Your task to perform on an android device: toggle data saver in the chrome app Image 0: 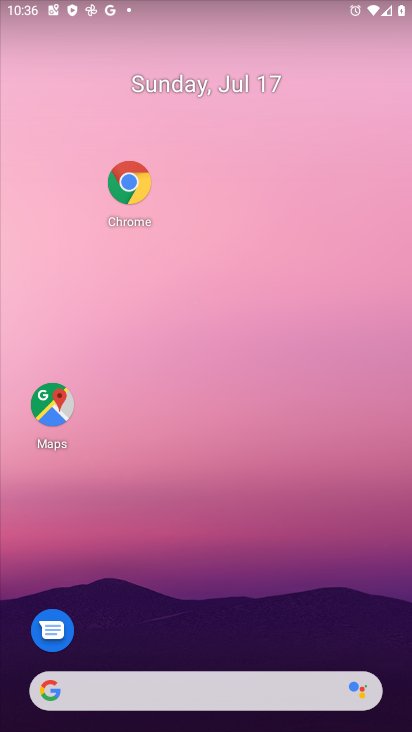
Step 0: click (128, 194)
Your task to perform on an android device: toggle data saver in the chrome app Image 1: 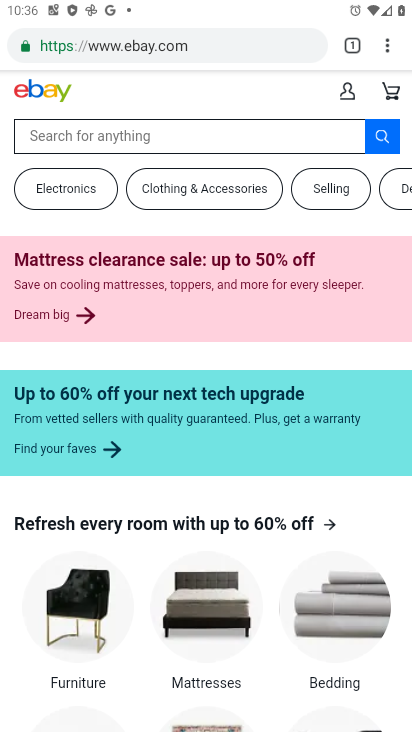
Step 1: click (385, 42)
Your task to perform on an android device: toggle data saver in the chrome app Image 2: 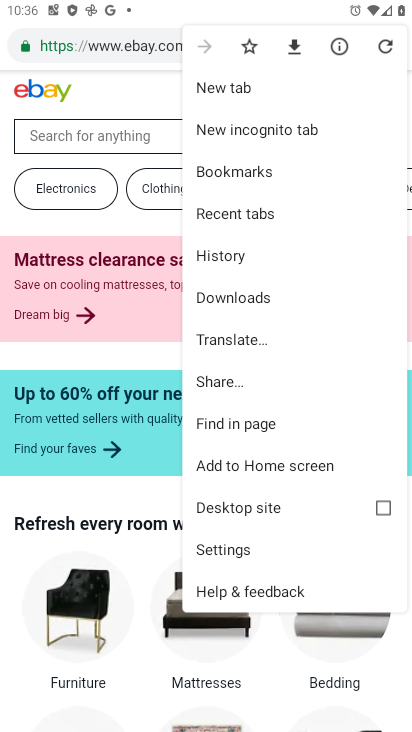
Step 2: click (227, 540)
Your task to perform on an android device: toggle data saver in the chrome app Image 3: 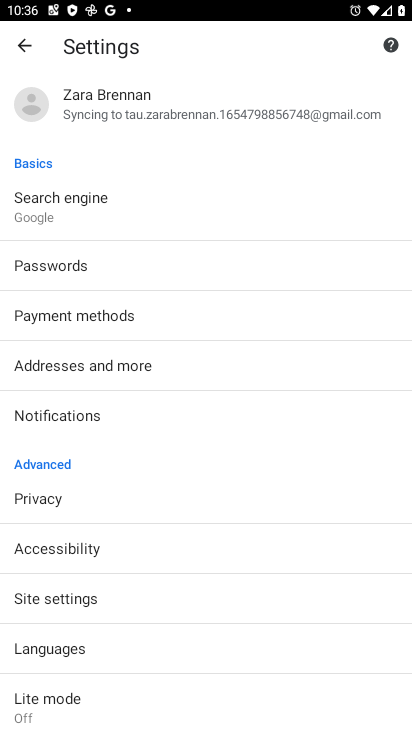
Step 3: click (45, 703)
Your task to perform on an android device: toggle data saver in the chrome app Image 4: 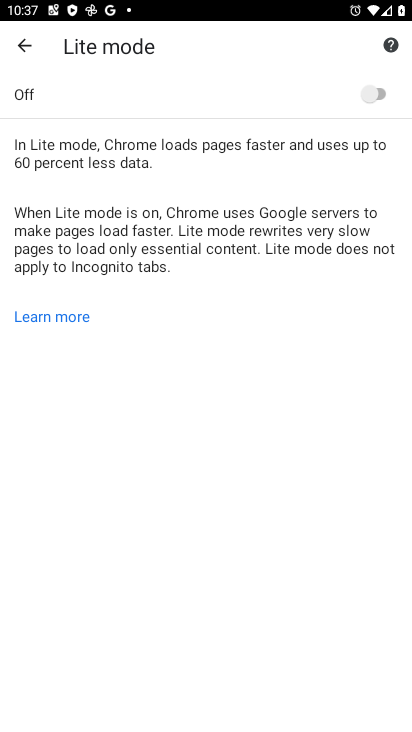
Step 4: click (387, 95)
Your task to perform on an android device: toggle data saver in the chrome app Image 5: 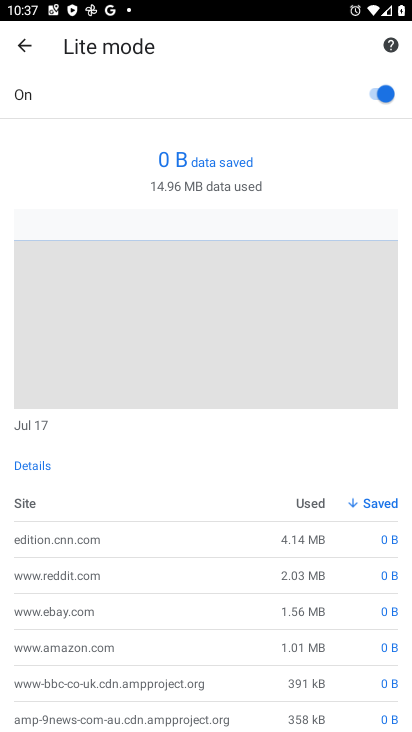
Step 5: task complete